Your task to perform on an android device: move a message to another label in the gmail app Image 0: 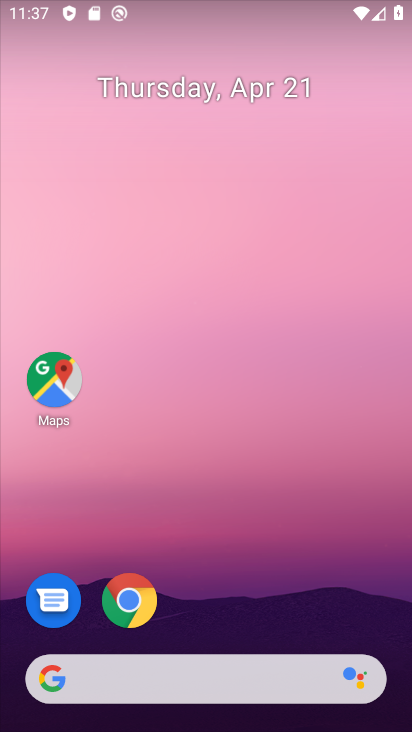
Step 0: drag from (246, 616) to (271, 72)
Your task to perform on an android device: move a message to another label in the gmail app Image 1: 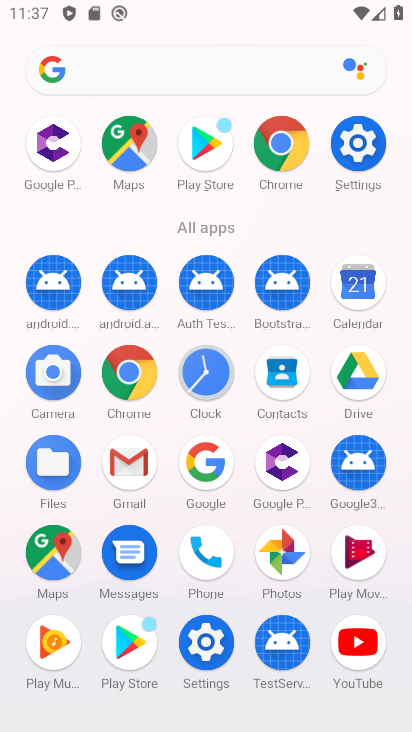
Step 1: click (134, 472)
Your task to perform on an android device: move a message to another label in the gmail app Image 2: 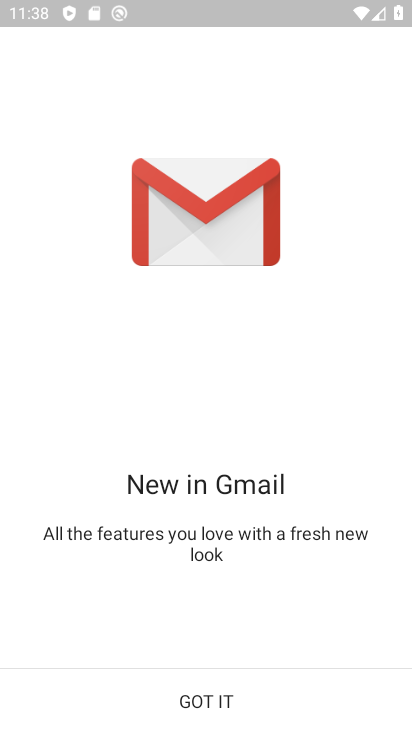
Step 2: click (222, 699)
Your task to perform on an android device: move a message to another label in the gmail app Image 3: 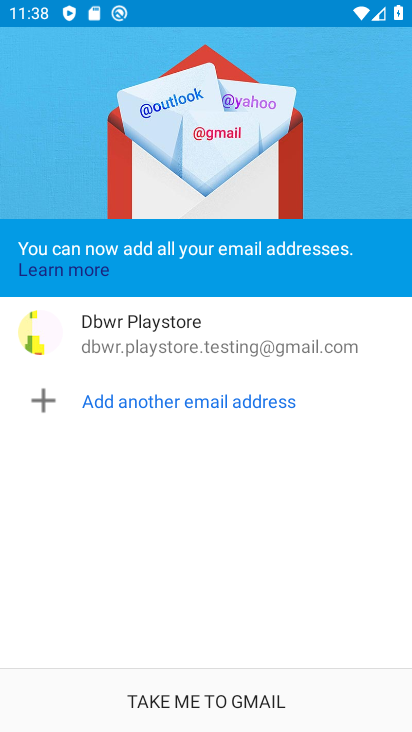
Step 3: click (213, 696)
Your task to perform on an android device: move a message to another label in the gmail app Image 4: 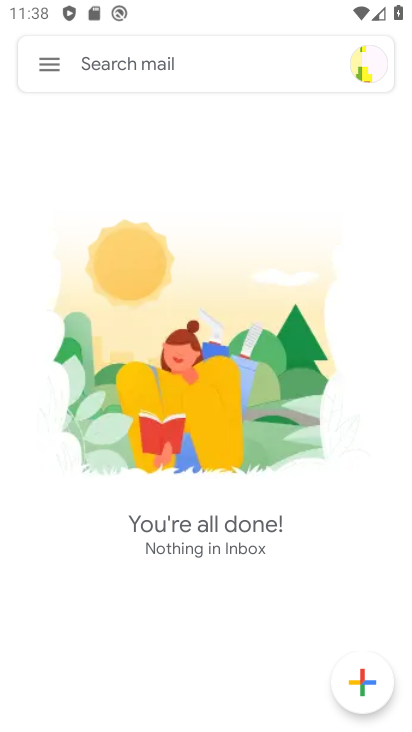
Step 4: click (55, 73)
Your task to perform on an android device: move a message to another label in the gmail app Image 5: 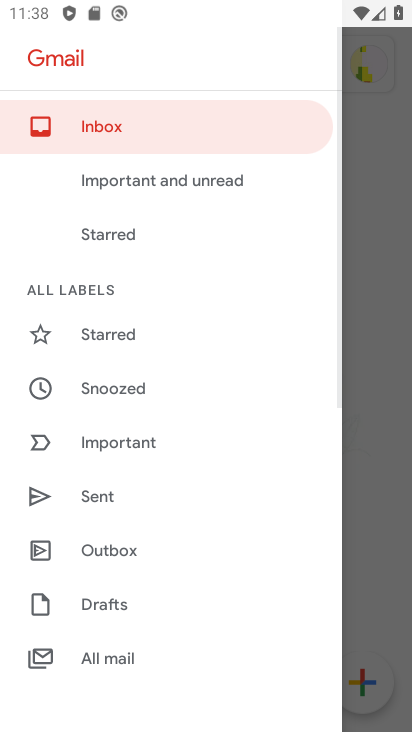
Step 5: drag from (100, 584) to (118, 396)
Your task to perform on an android device: move a message to another label in the gmail app Image 6: 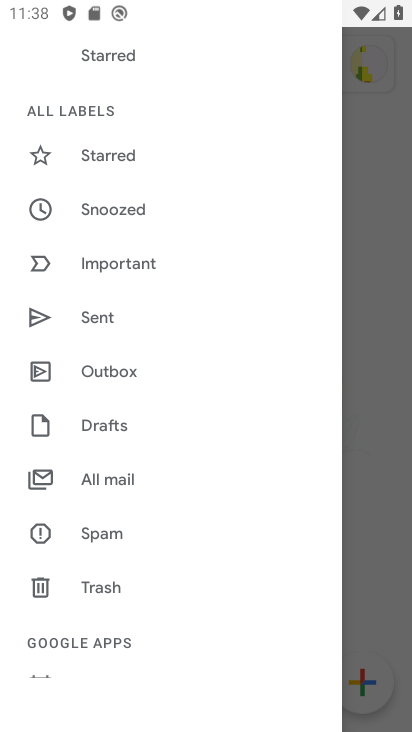
Step 6: click (97, 479)
Your task to perform on an android device: move a message to another label in the gmail app Image 7: 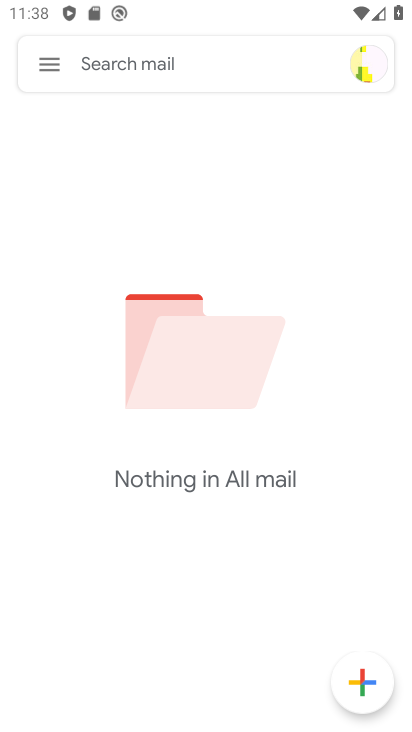
Step 7: task complete